Your task to perform on an android device: toggle sleep mode Image 0: 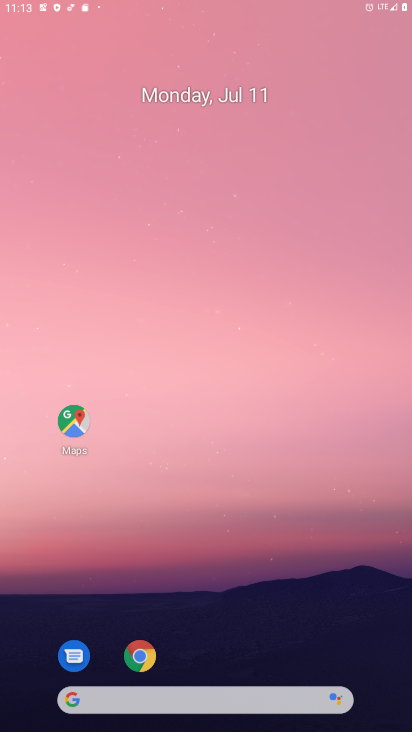
Step 0: drag from (218, 596) to (267, 30)
Your task to perform on an android device: toggle sleep mode Image 1: 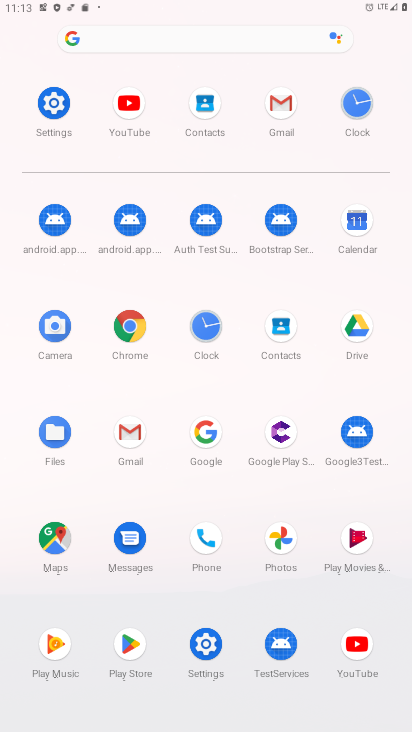
Step 1: click (213, 639)
Your task to perform on an android device: toggle sleep mode Image 2: 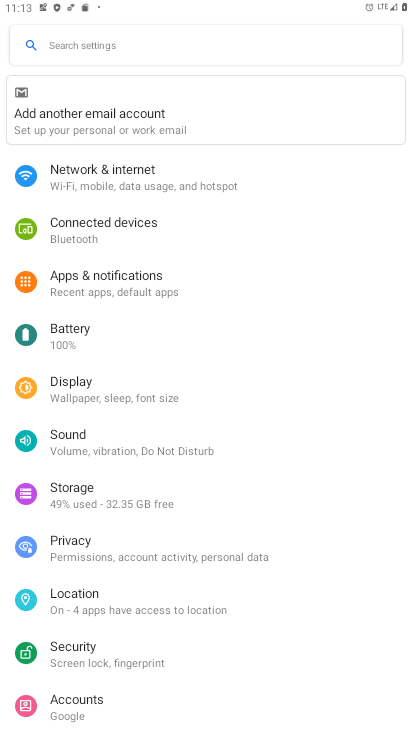
Step 2: click (124, 396)
Your task to perform on an android device: toggle sleep mode Image 3: 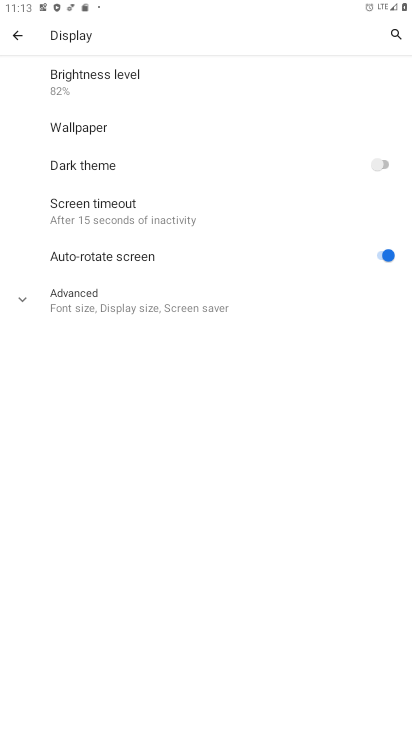
Step 3: click (97, 309)
Your task to perform on an android device: toggle sleep mode Image 4: 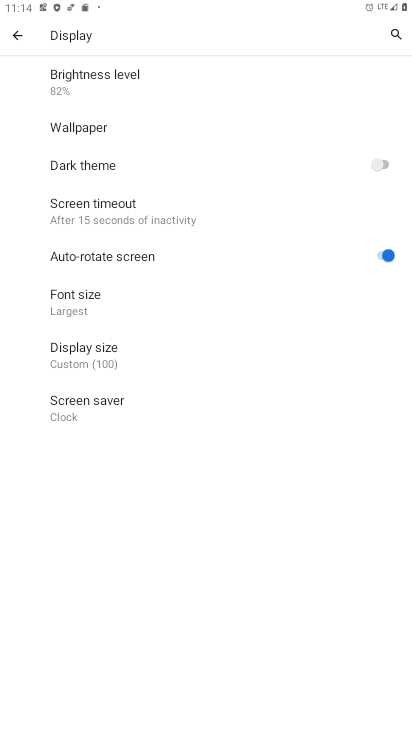
Step 4: click (159, 212)
Your task to perform on an android device: toggle sleep mode Image 5: 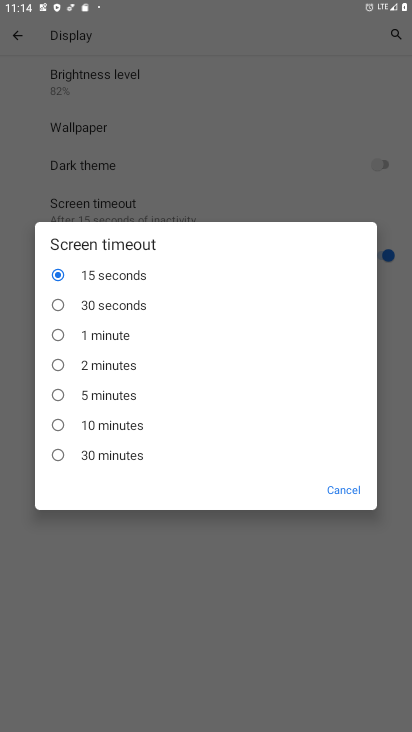
Step 5: task complete